Your task to perform on an android device: Open Google Maps Image 0: 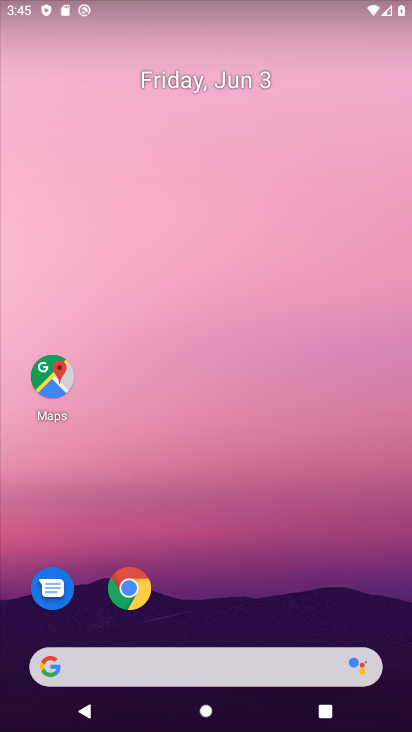
Step 0: click (59, 375)
Your task to perform on an android device: Open Google Maps Image 1: 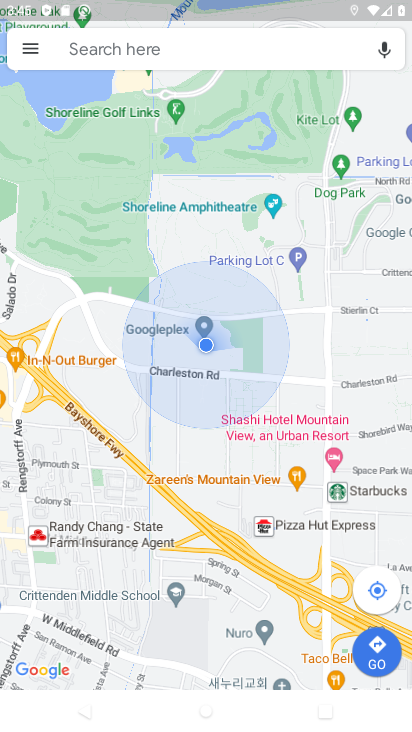
Step 1: task complete